Your task to perform on an android device: change timer sound Image 0: 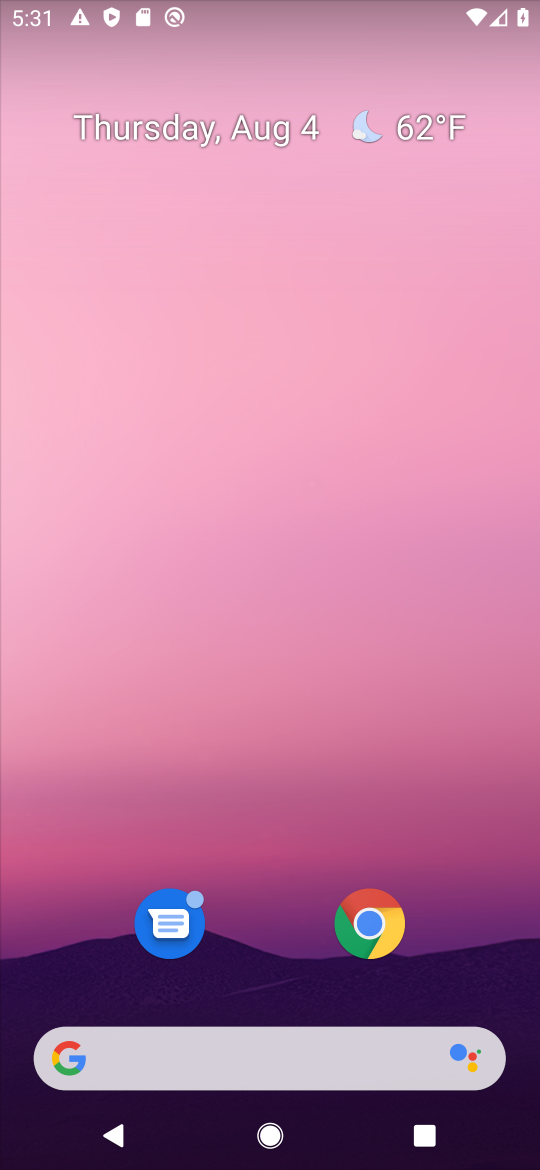
Step 0: drag from (505, 923) to (447, 369)
Your task to perform on an android device: change timer sound Image 1: 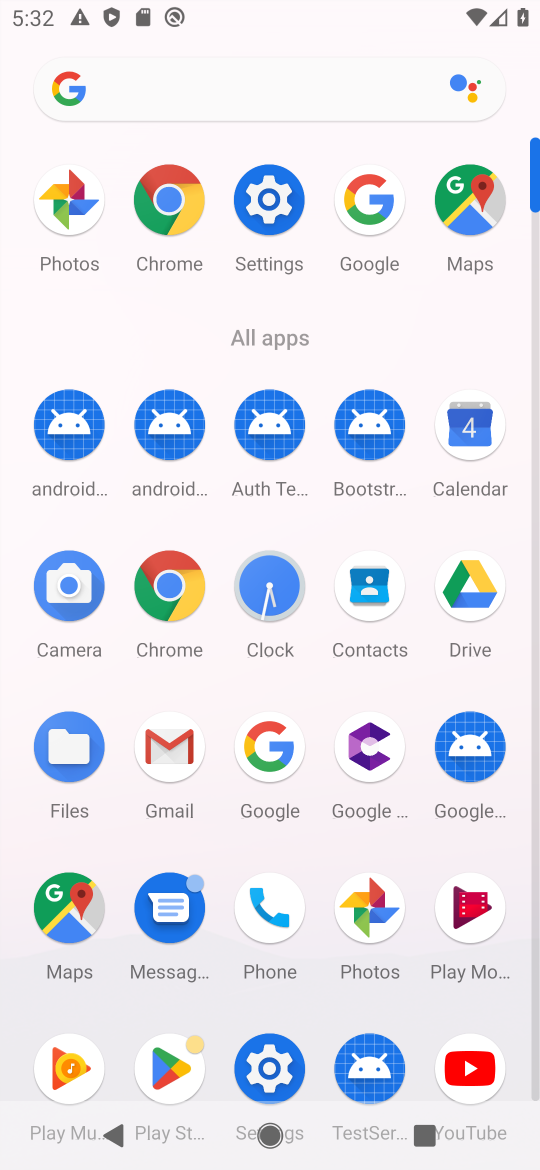
Step 1: drag from (318, 853) to (314, 315)
Your task to perform on an android device: change timer sound Image 2: 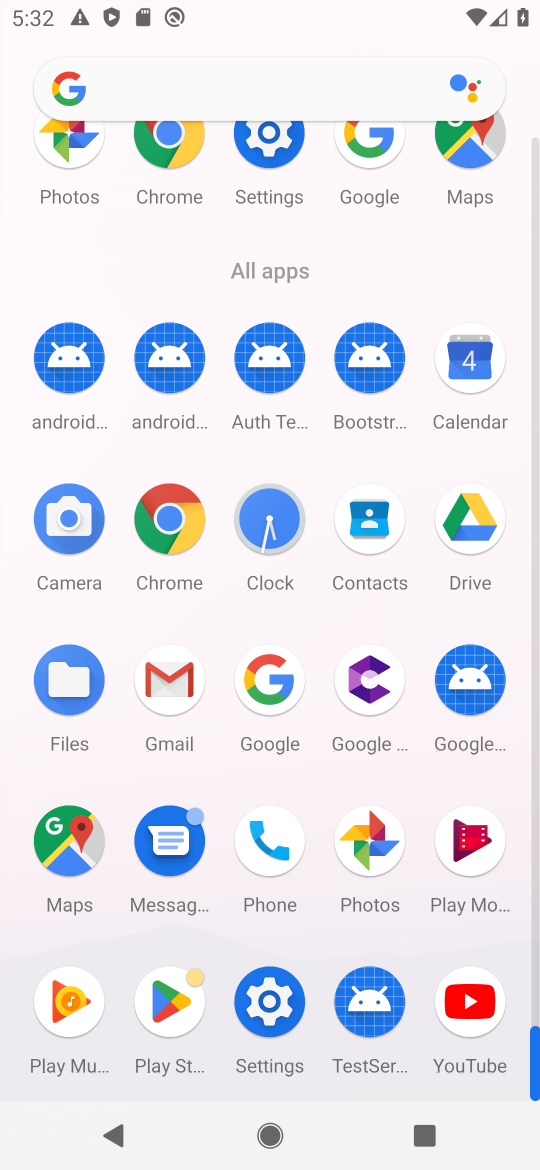
Step 2: drag from (341, 251) to (364, 466)
Your task to perform on an android device: change timer sound Image 3: 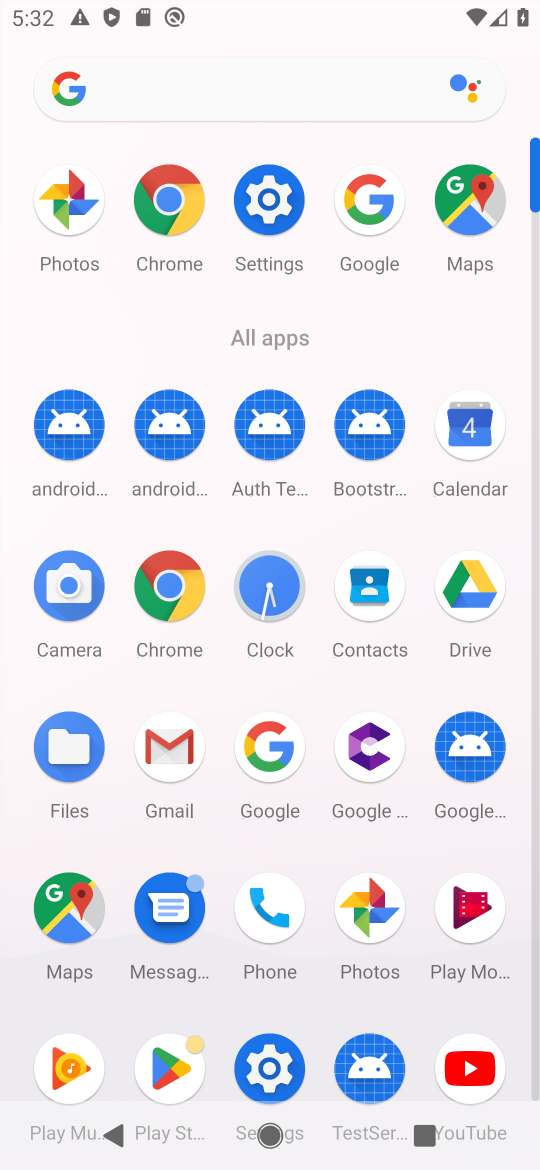
Step 3: click (275, 593)
Your task to perform on an android device: change timer sound Image 4: 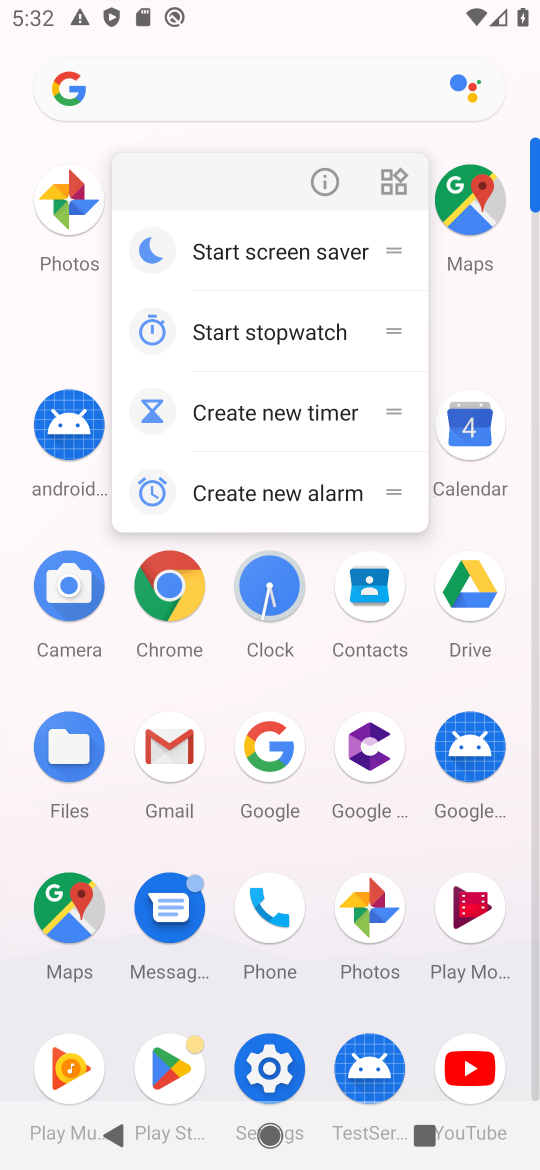
Step 4: click (274, 606)
Your task to perform on an android device: change timer sound Image 5: 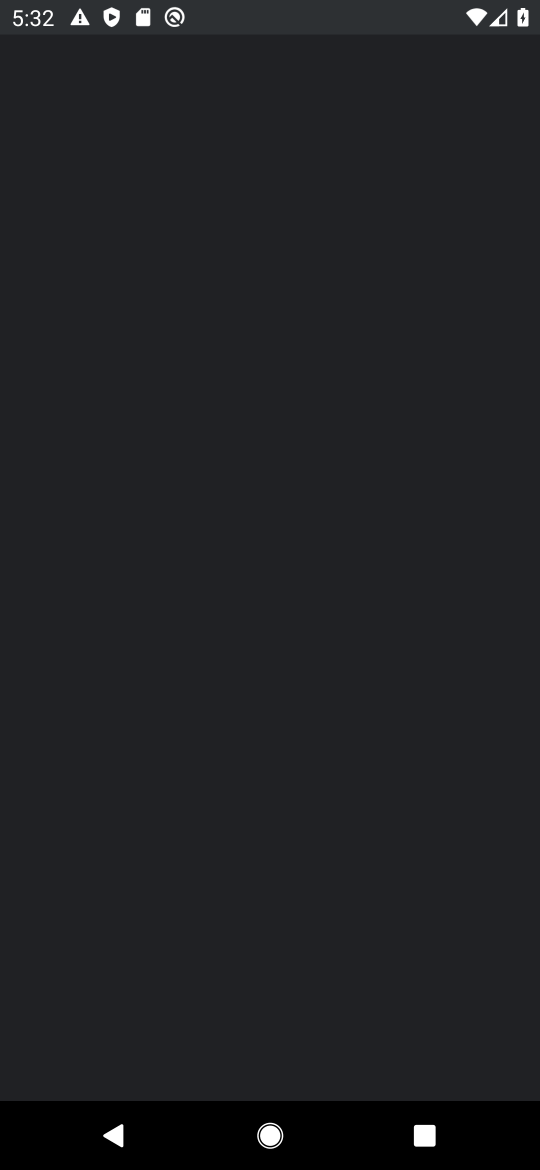
Step 5: click (274, 606)
Your task to perform on an android device: change timer sound Image 6: 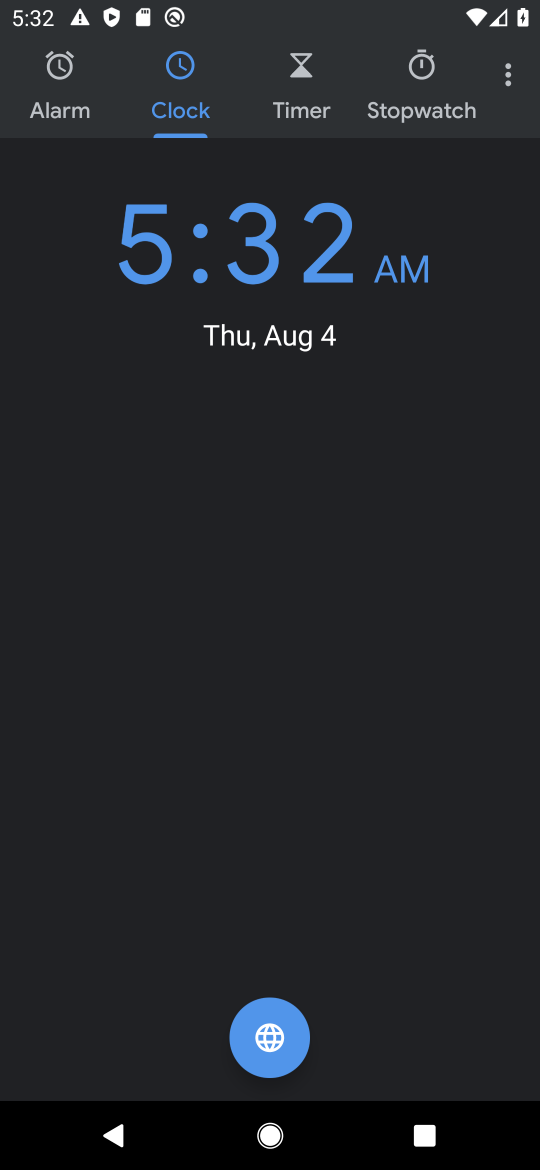
Step 6: click (517, 71)
Your task to perform on an android device: change timer sound Image 7: 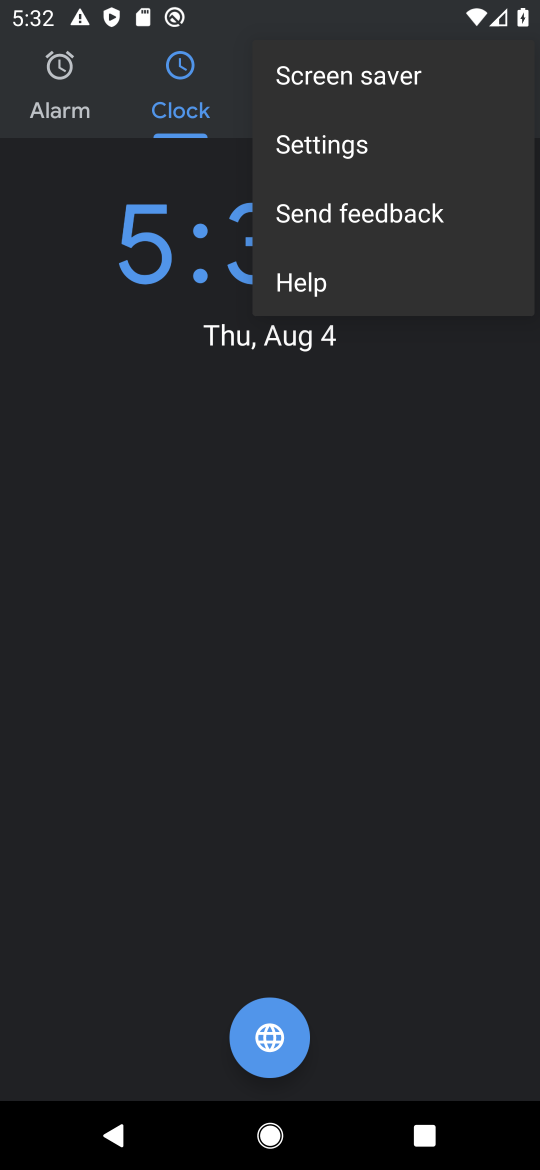
Step 7: click (353, 155)
Your task to perform on an android device: change timer sound Image 8: 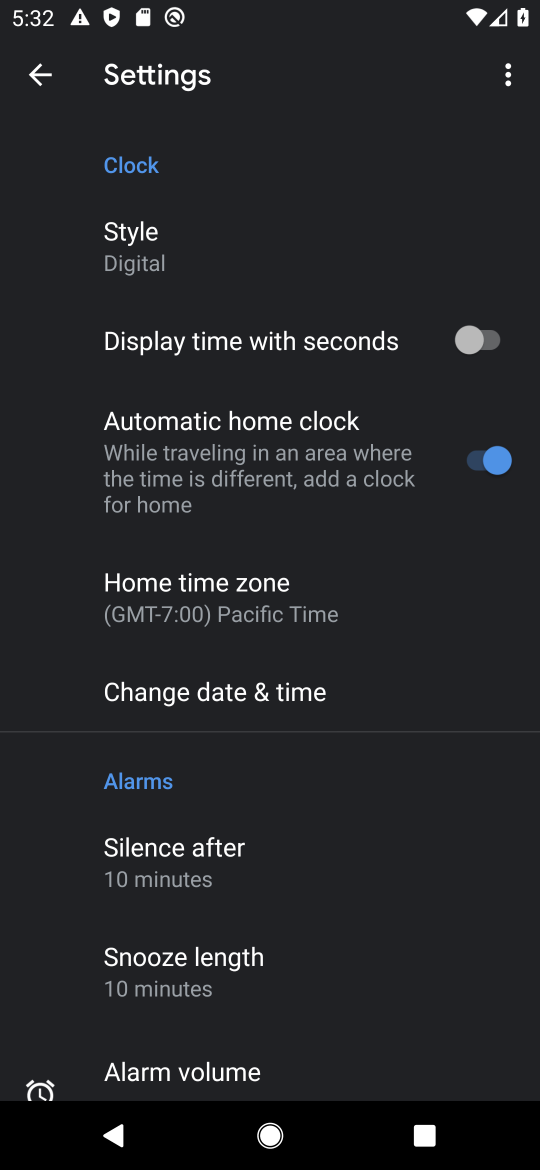
Step 8: drag from (378, 857) to (310, 359)
Your task to perform on an android device: change timer sound Image 9: 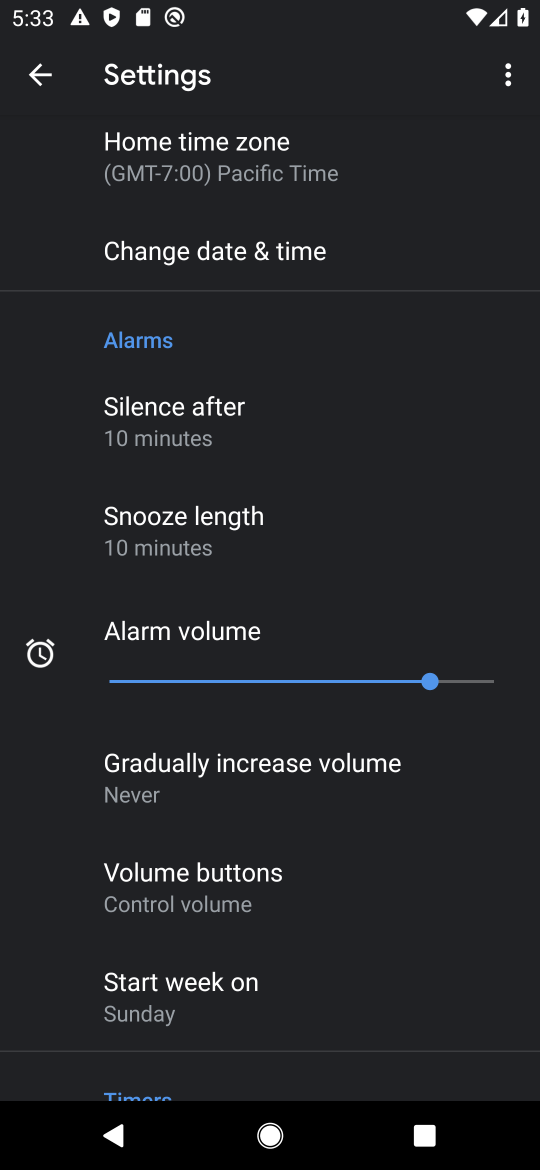
Step 9: drag from (419, 910) to (364, 330)
Your task to perform on an android device: change timer sound Image 10: 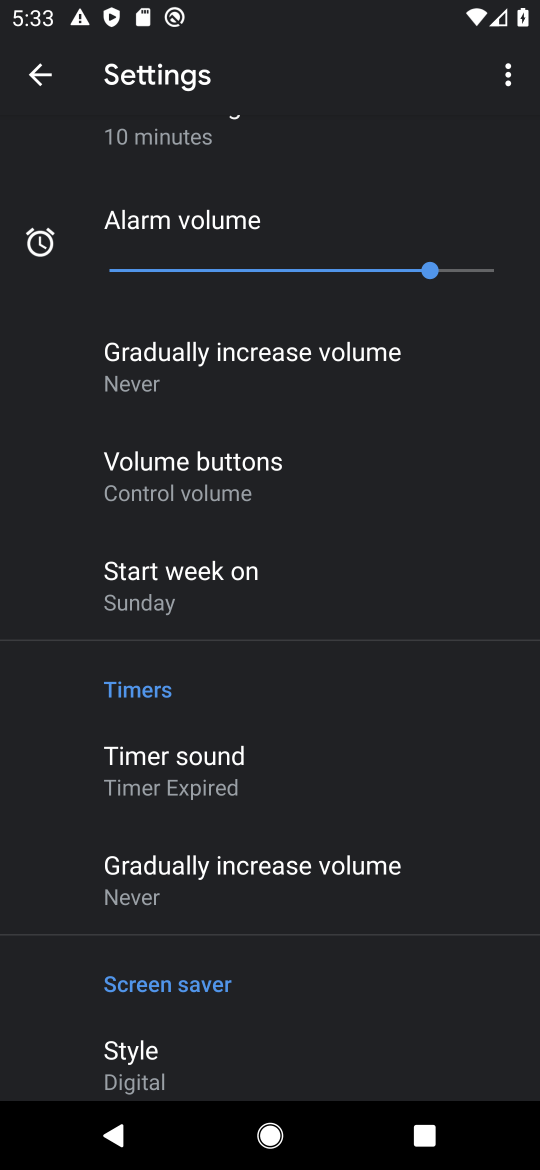
Step 10: click (263, 788)
Your task to perform on an android device: change timer sound Image 11: 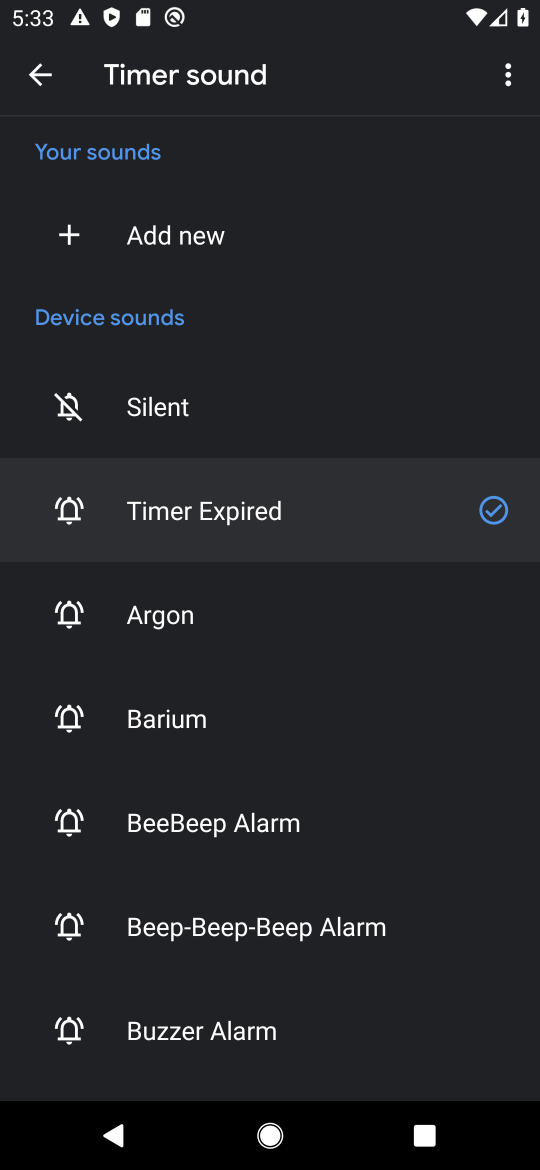
Step 11: click (152, 610)
Your task to perform on an android device: change timer sound Image 12: 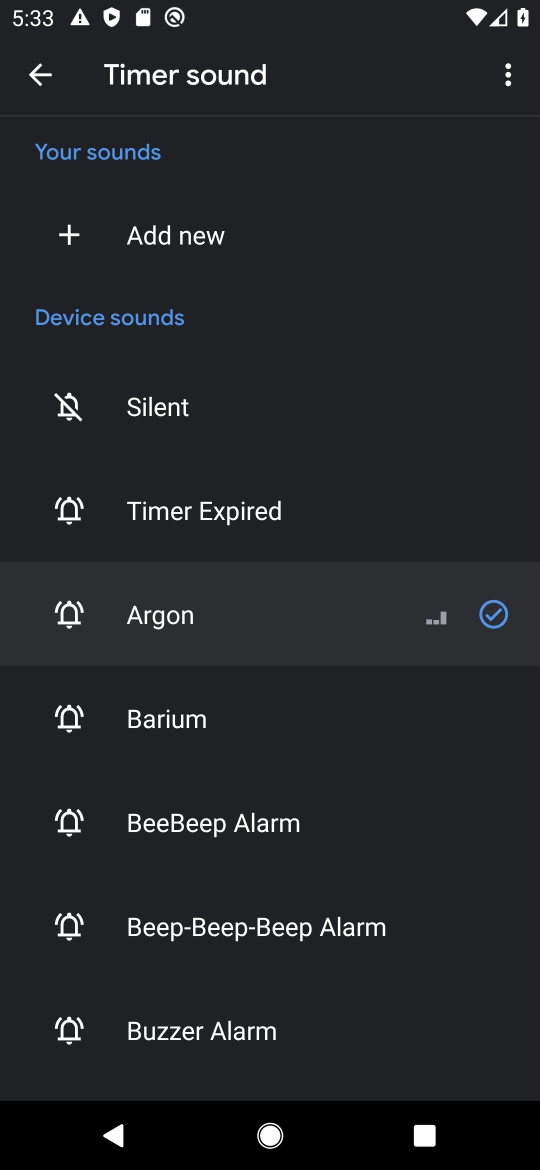
Step 12: task complete